Your task to perform on an android device: toggle priority inbox in the gmail app Image 0: 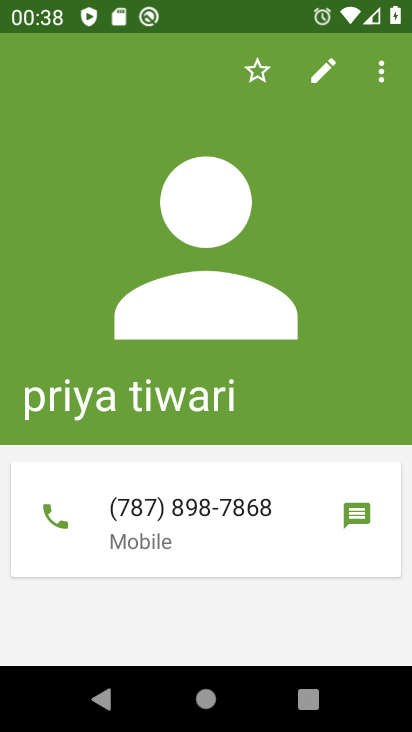
Step 0: press home button
Your task to perform on an android device: toggle priority inbox in the gmail app Image 1: 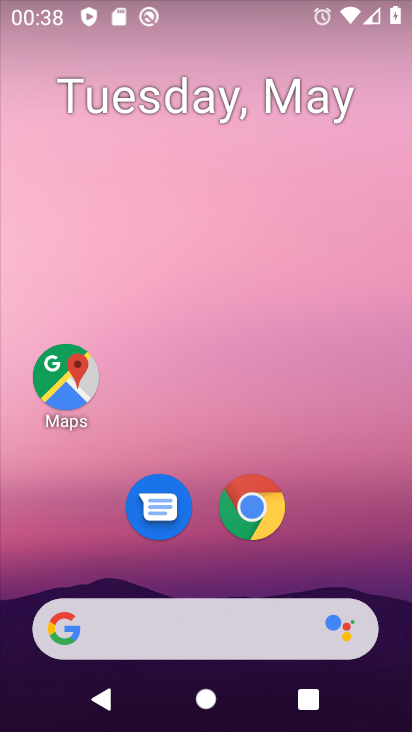
Step 1: drag from (250, 586) to (250, 290)
Your task to perform on an android device: toggle priority inbox in the gmail app Image 2: 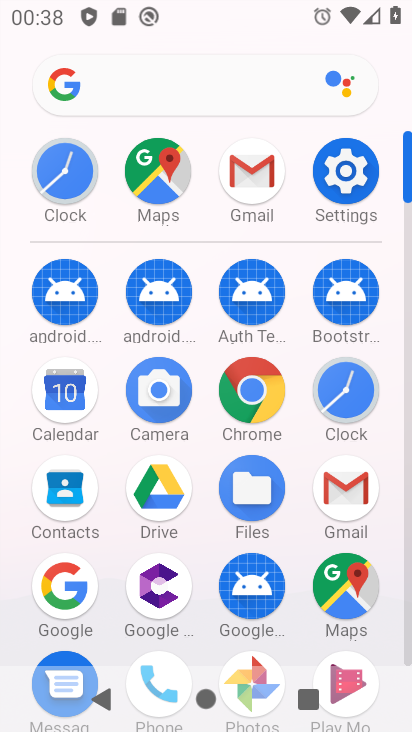
Step 2: click (341, 491)
Your task to perform on an android device: toggle priority inbox in the gmail app Image 3: 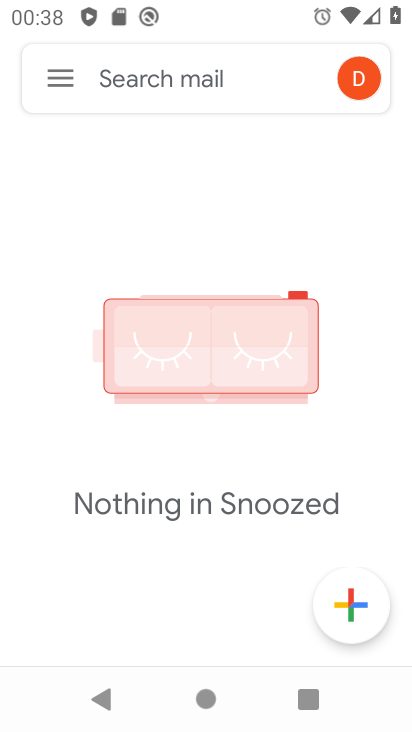
Step 3: click (52, 87)
Your task to perform on an android device: toggle priority inbox in the gmail app Image 4: 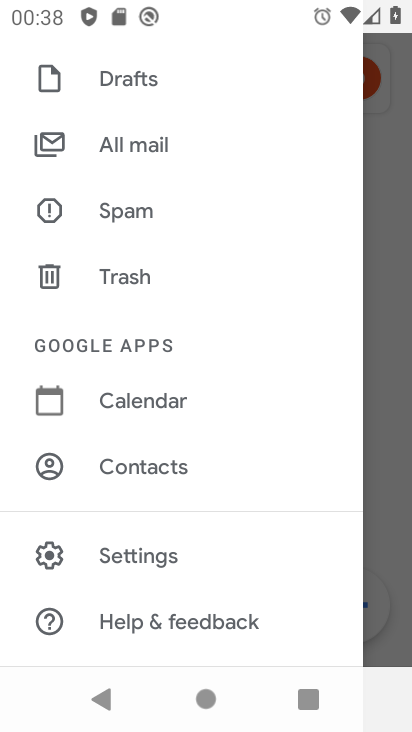
Step 4: click (149, 551)
Your task to perform on an android device: toggle priority inbox in the gmail app Image 5: 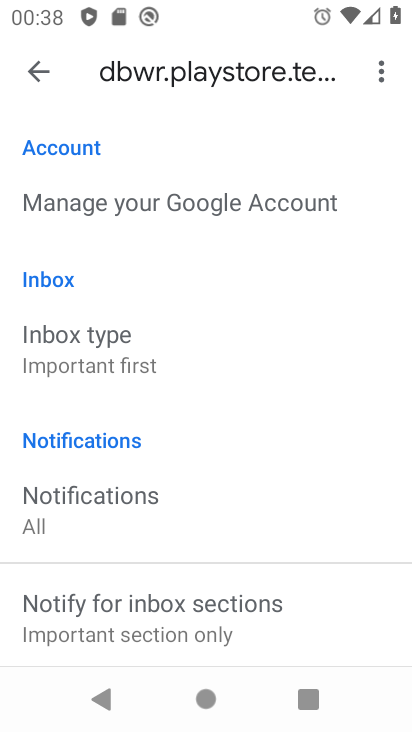
Step 5: click (107, 365)
Your task to perform on an android device: toggle priority inbox in the gmail app Image 6: 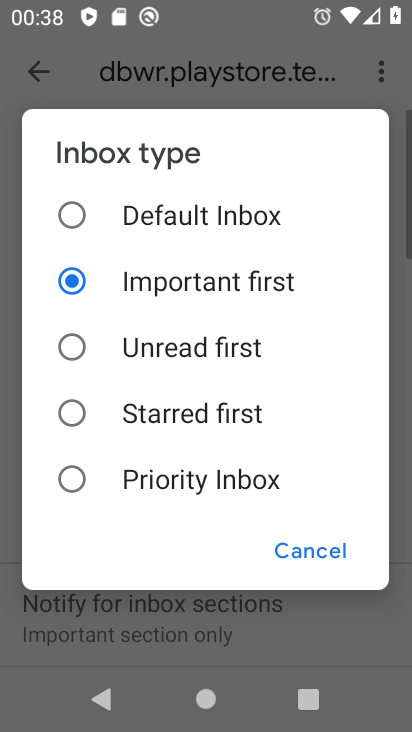
Step 6: click (131, 485)
Your task to perform on an android device: toggle priority inbox in the gmail app Image 7: 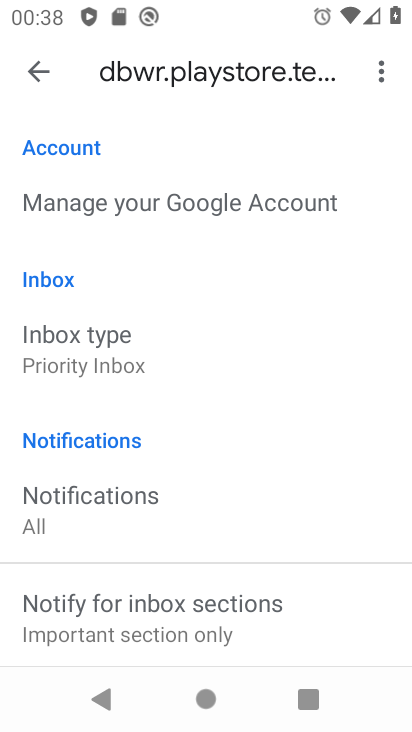
Step 7: task complete